Your task to perform on an android device: Open CNN.com Image 0: 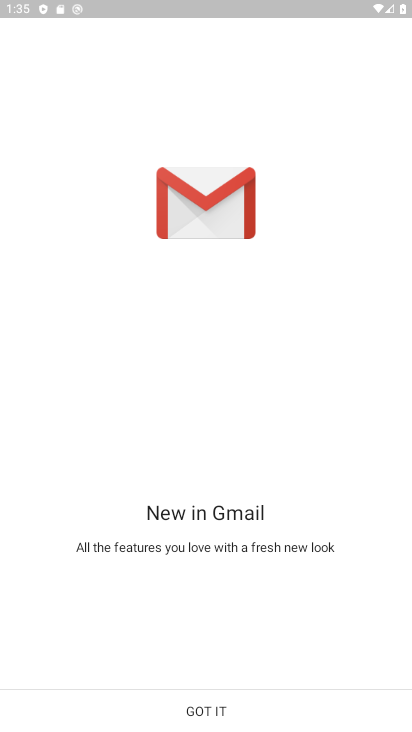
Step 0: press home button
Your task to perform on an android device: Open CNN.com Image 1: 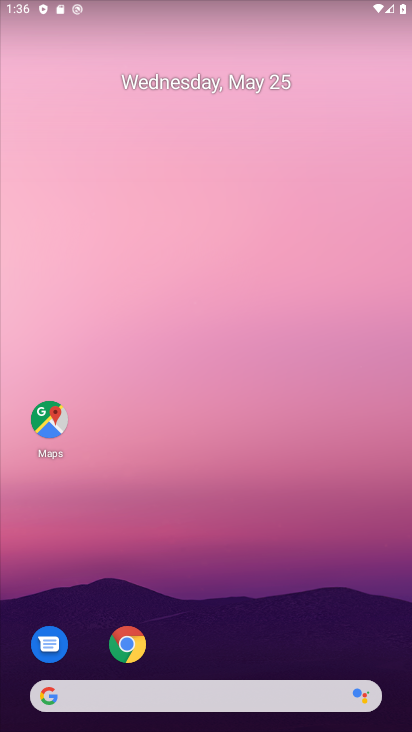
Step 1: drag from (329, 605) to (350, 154)
Your task to perform on an android device: Open CNN.com Image 2: 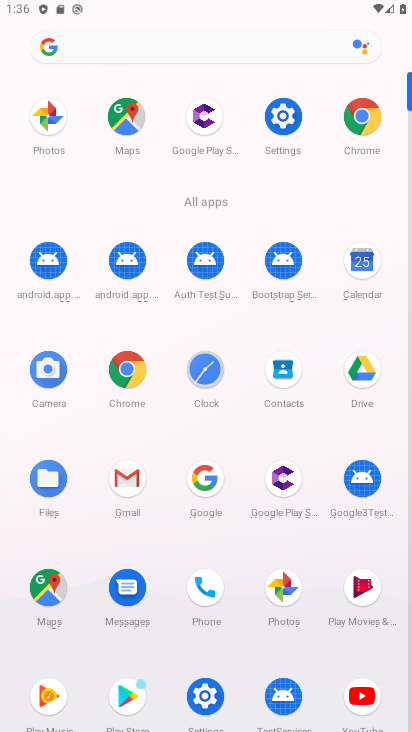
Step 2: click (138, 381)
Your task to perform on an android device: Open CNN.com Image 3: 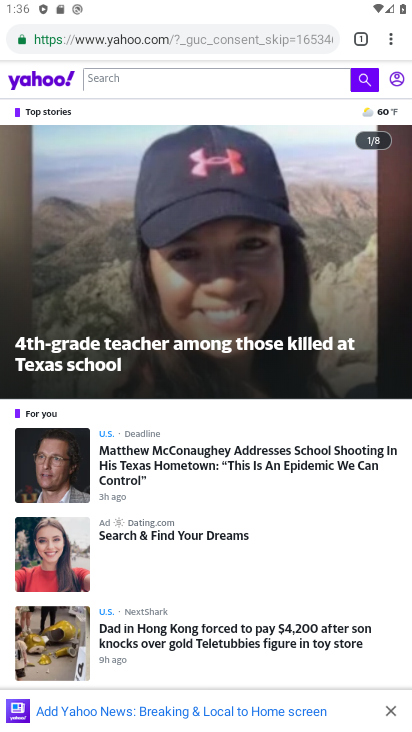
Step 3: click (219, 41)
Your task to perform on an android device: Open CNN.com Image 4: 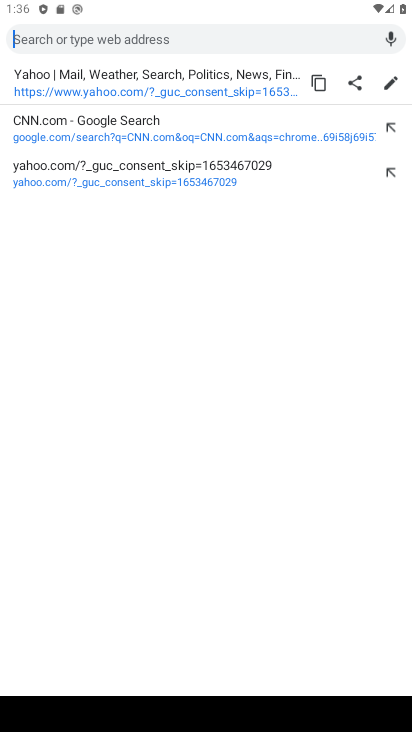
Step 4: type "cnn,vom"
Your task to perform on an android device: Open CNN.com Image 5: 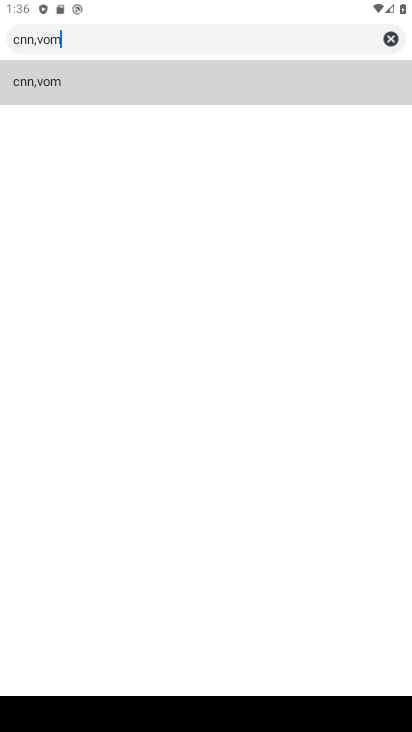
Step 5: click (78, 75)
Your task to perform on an android device: Open CNN.com Image 6: 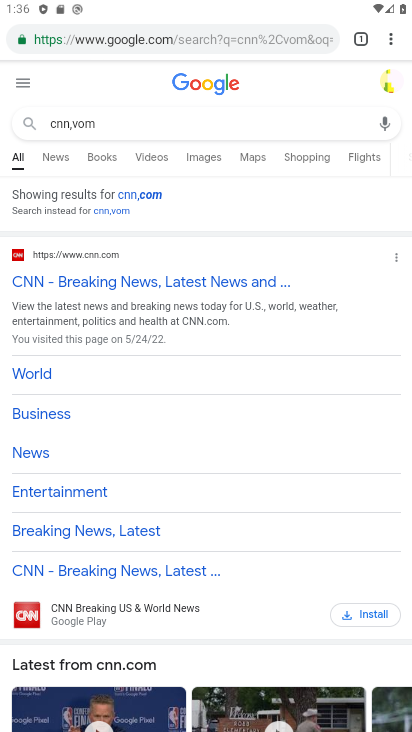
Step 6: task complete